Your task to perform on an android device: Open Chrome and go to settings Image 0: 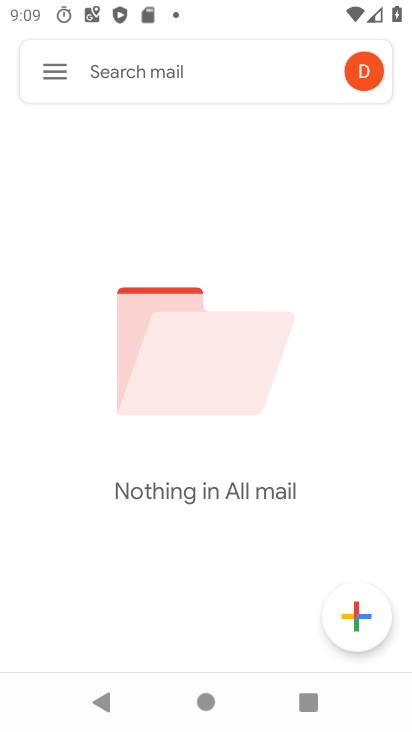
Step 0: press home button
Your task to perform on an android device: Open Chrome and go to settings Image 1: 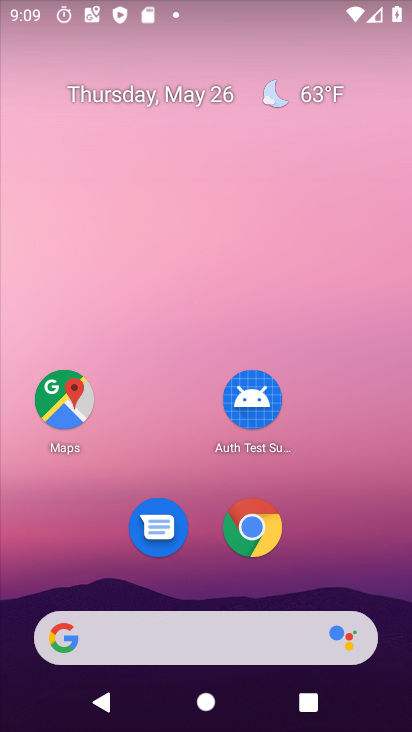
Step 1: click (369, 545)
Your task to perform on an android device: Open Chrome and go to settings Image 2: 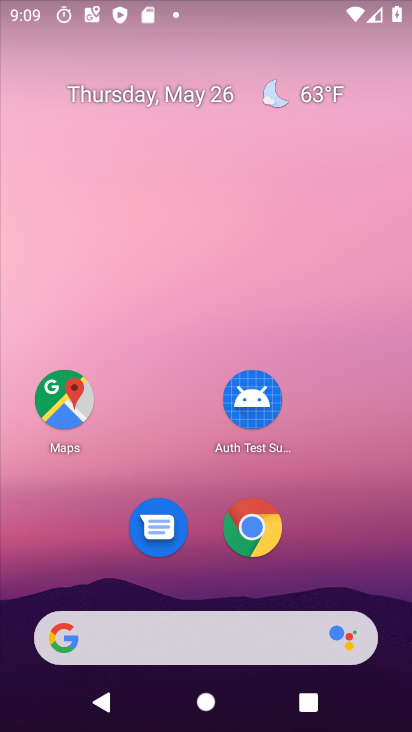
Step 2: drag from (364, 376) to (359, 4)
Your task to perform on an android device: Open Chrome and go to settings Image 3: 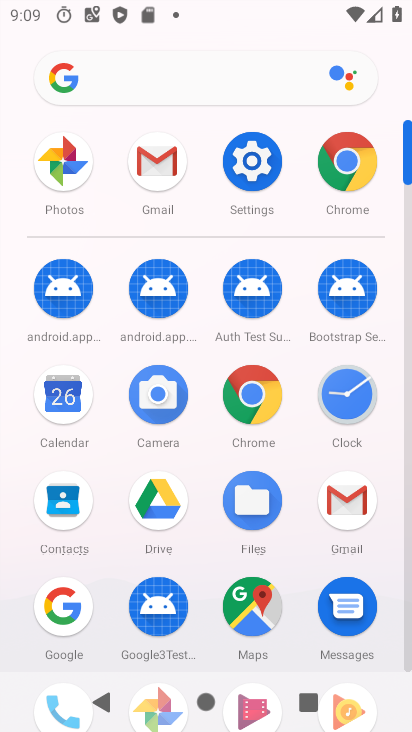
Step 3: click (357, 170)
Your task to perform on an android device: Open Chrome and go to settings Image 4: 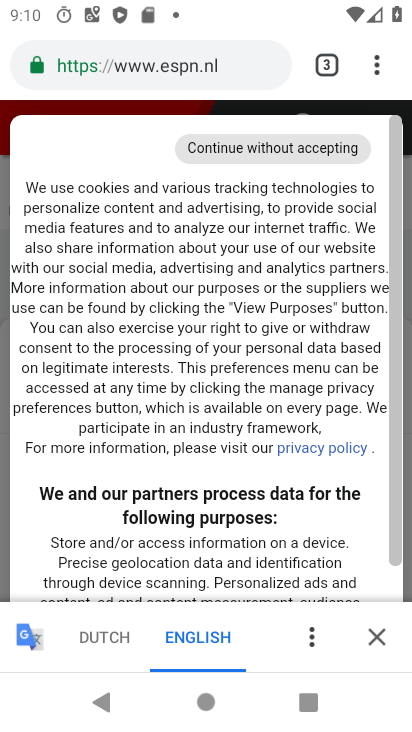
Step 4: task complete